Your task to perform on an android device: Open CNN.com Image 0: 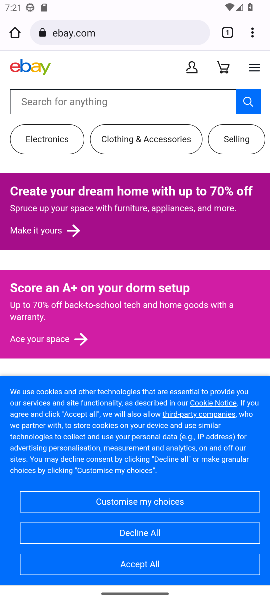
Step 0: click (111, 21)
Your task to perform on an android device: Open CNN.com Image 1: 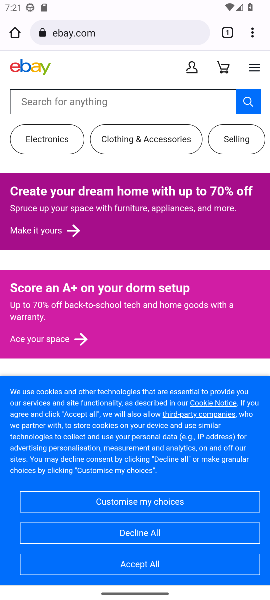
Step 1: click (111, 21)
Your task to perform on an android device: Open CNN.com Image 2: 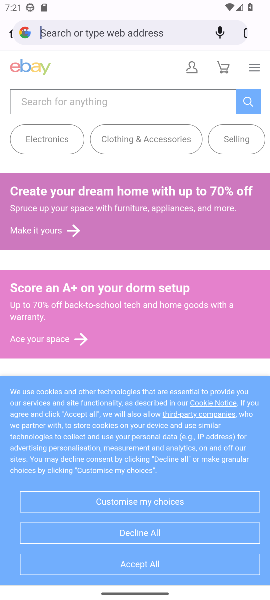
Step 2: click (111, 21)
Your task to perform on an android device: Open CNN.com Image 3: 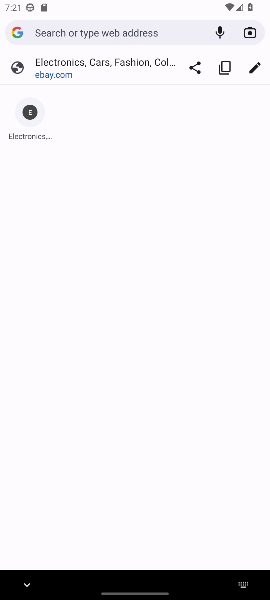
Step 3: click (113, 29)
Your task to perform on an android device: Open CNN.com Image 4: 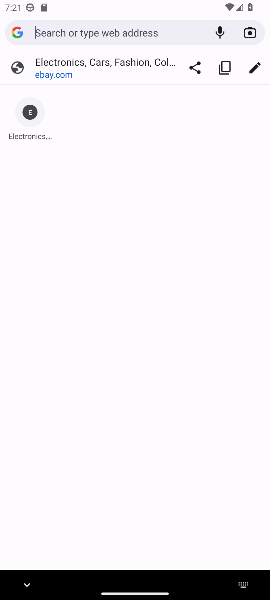
Step 4: type "CNN.com"
Your task to perform on an android device: Open CNN.com Image 5: 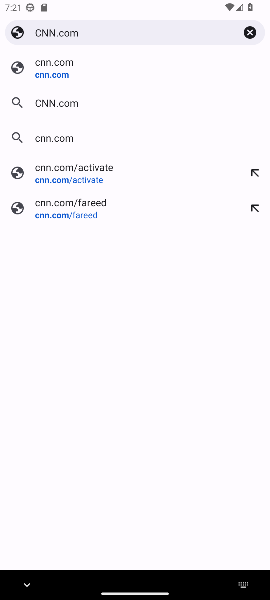
Step 5: click (63, 69)
Your task to perform on an android device: Open CNN.com Image 6: 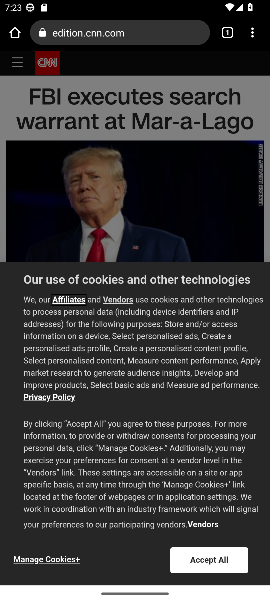
Step 6: task complete